Your task to perform on an android device: When is my next meeting? Image 0: 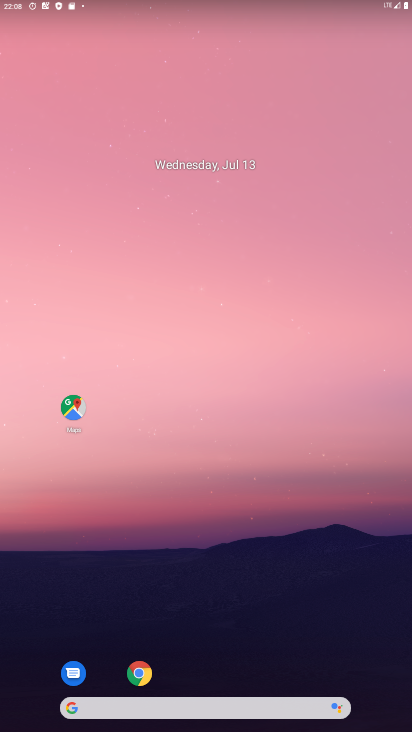
Step 0: drag from (193, 551) to (193, 131)
Your task to perform on an android device: When is my next meeting? Image 1: 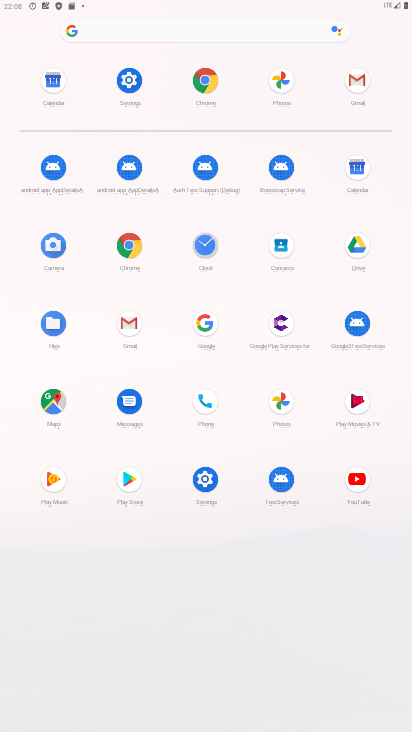
Step 1: click (352, 167)
Your task to perform on an android device: When is my next meeting? Image 2: 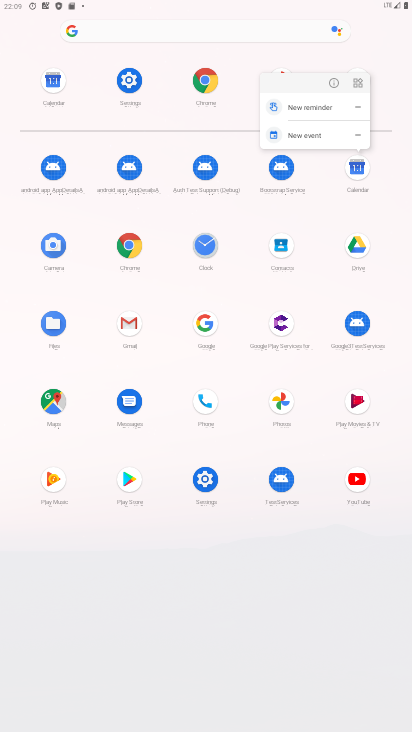
Step 2: click (331, 87)
Your task to perform on an android device: When is my next meeting? Image 3: 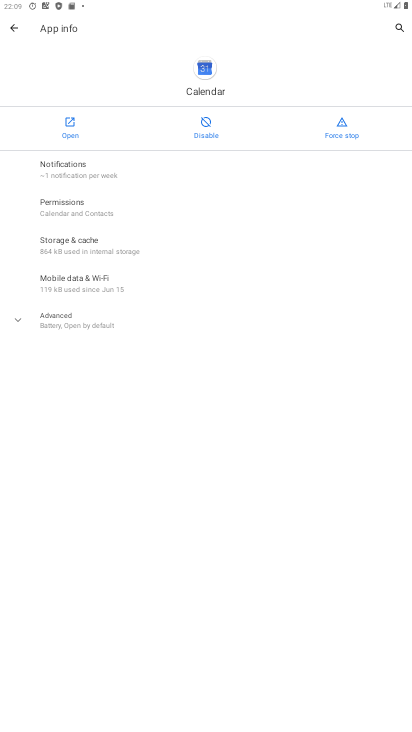
Step 3: click (64, 120)
Your task to perform on an android device: When is my next meeting? Image 4: 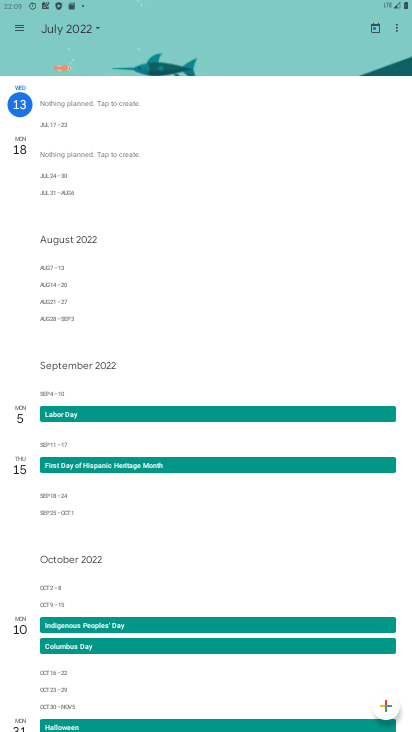
Step 4: click (69, 33)
Your task to perform on an android device: When is my next meeting? Image 5: 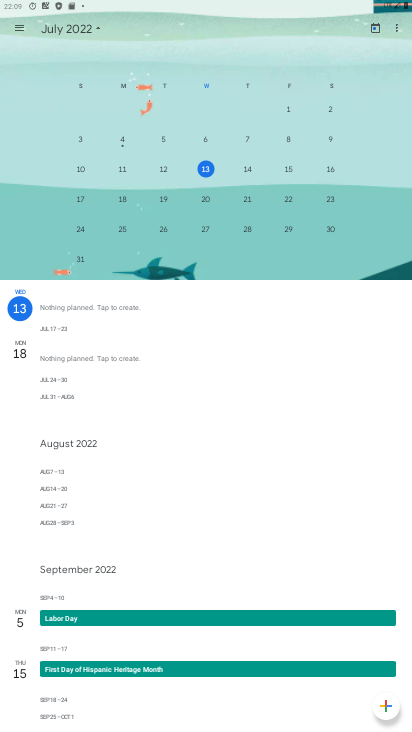
Step 5: click (204, 167)
Your task to perform on an android device: When is my next meeting? Image 6: 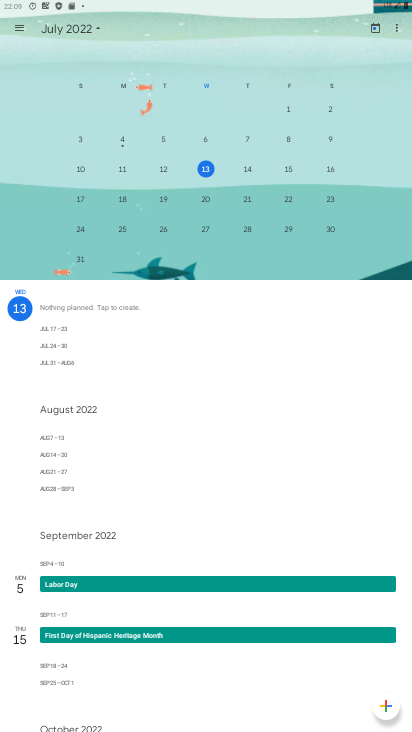
Step 6: task complete